Your task to perform on an android device: Search for vegetarian restaurants on Maps Image 0: 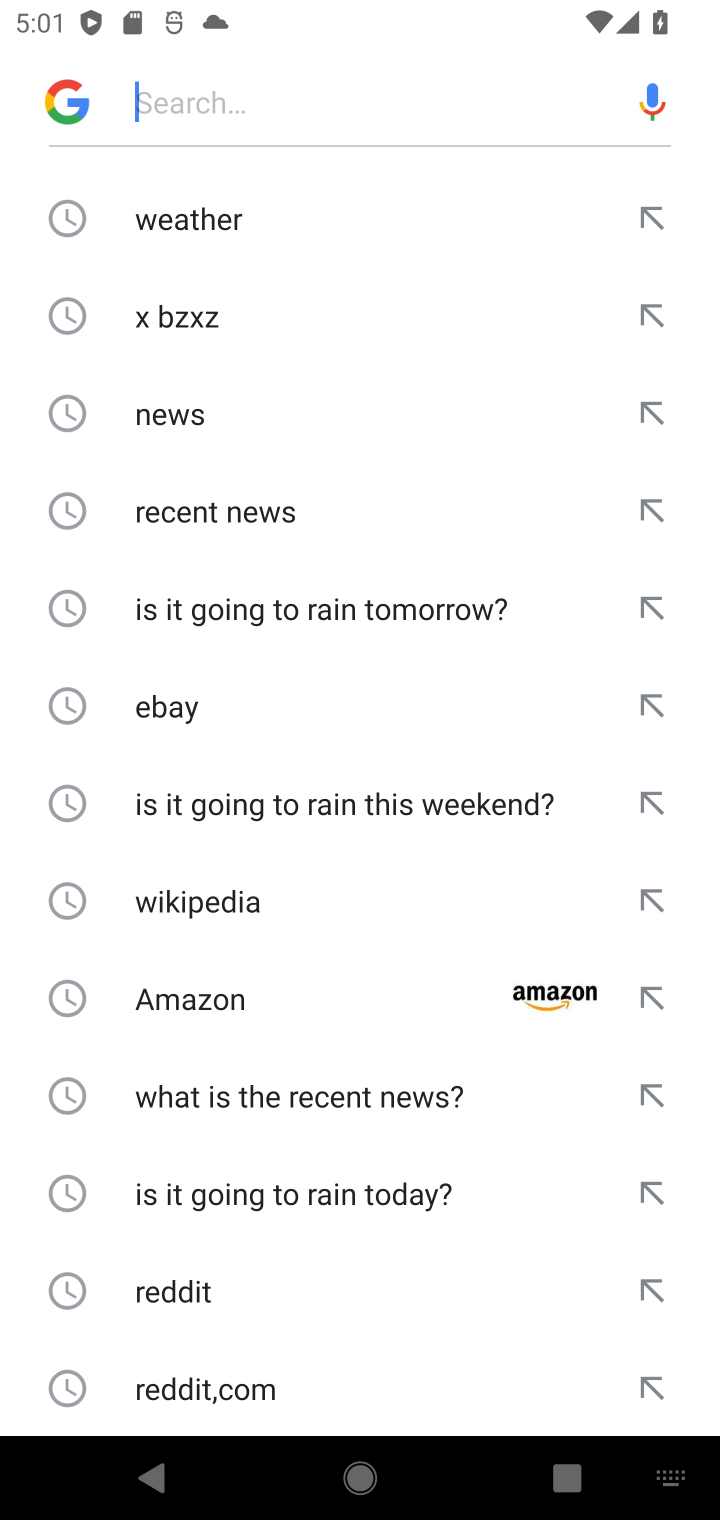
Step 0: press home button
Your task to perform on an android device: Search for vegetarian restaurants on Maps Image 1: 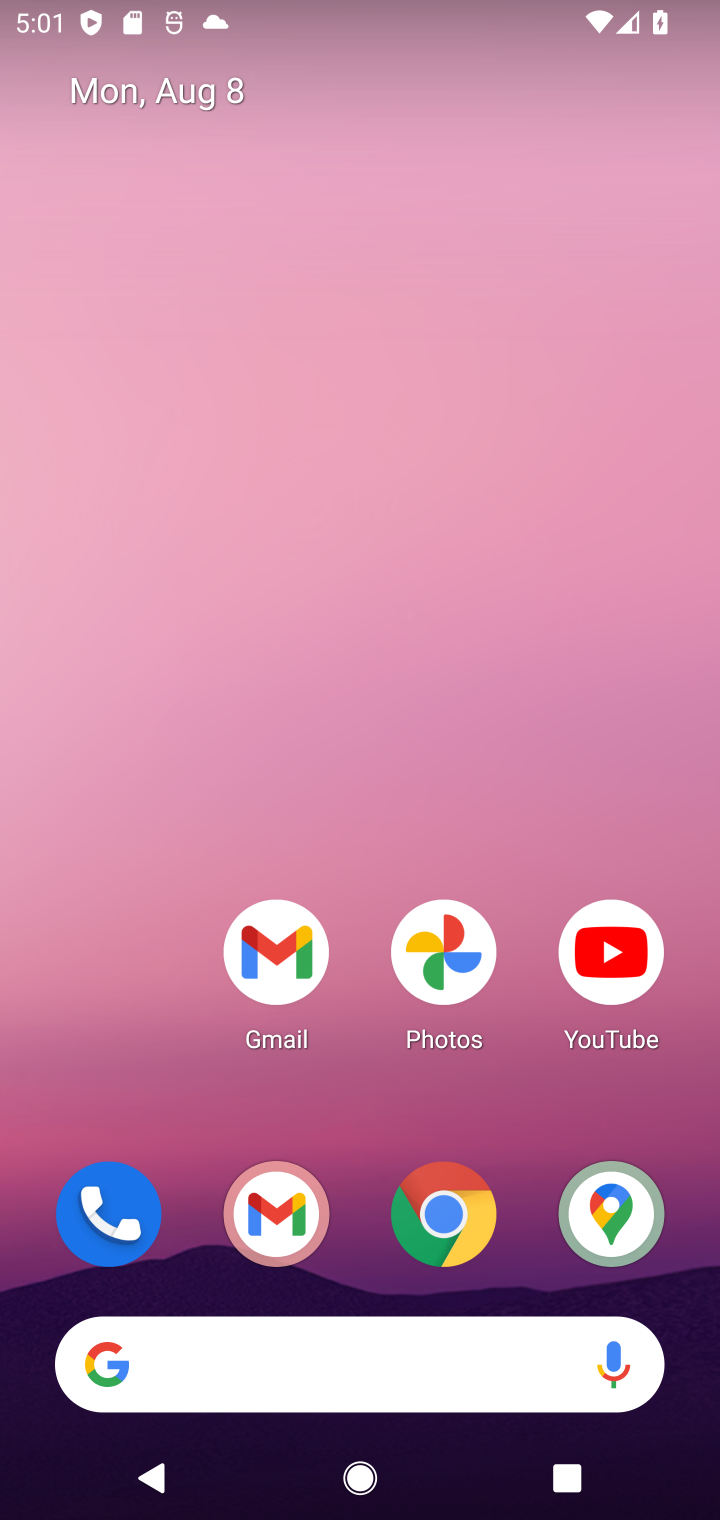
Step 1: drag from (363, 1293) to (363, 121)
Your task to perform on an android device: Search for vegetarian restaurants on Maps Image 2: 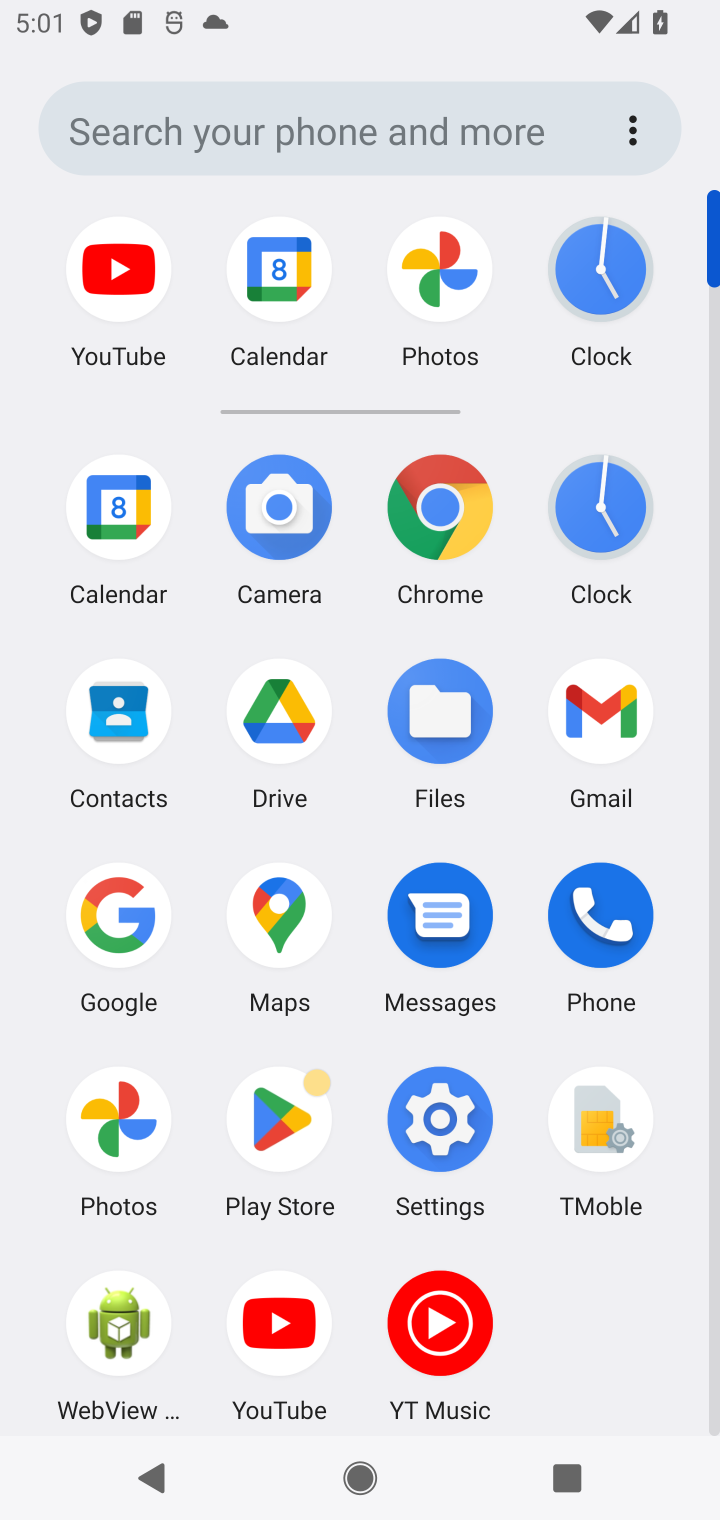
Step 2: click (274, 906)
Your task to perform on an android device: Search for vegetarian restaurants on Maps Image 3: 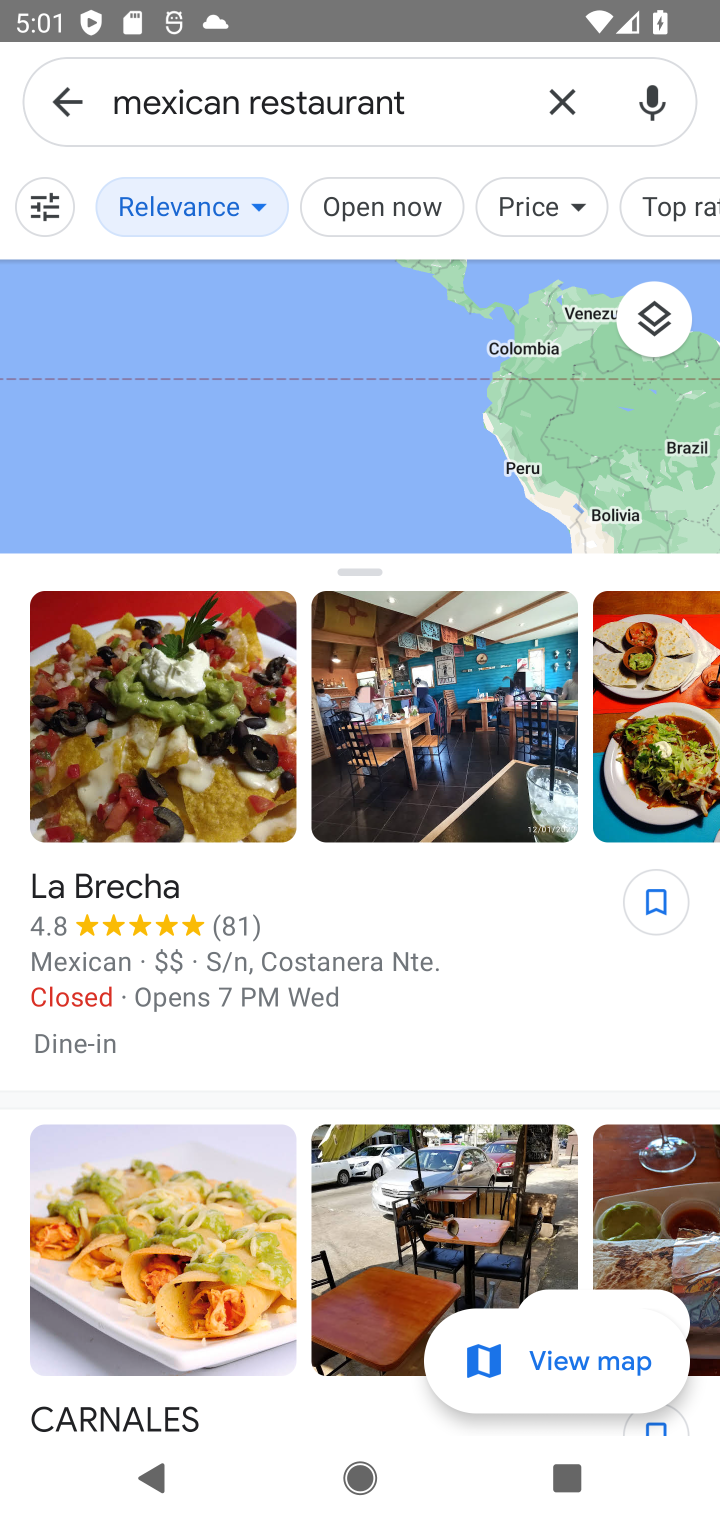
Step 3: click (564, 95)
Your task to perform on an android device: Search for vegetarian restaurants on Maps Image 4: 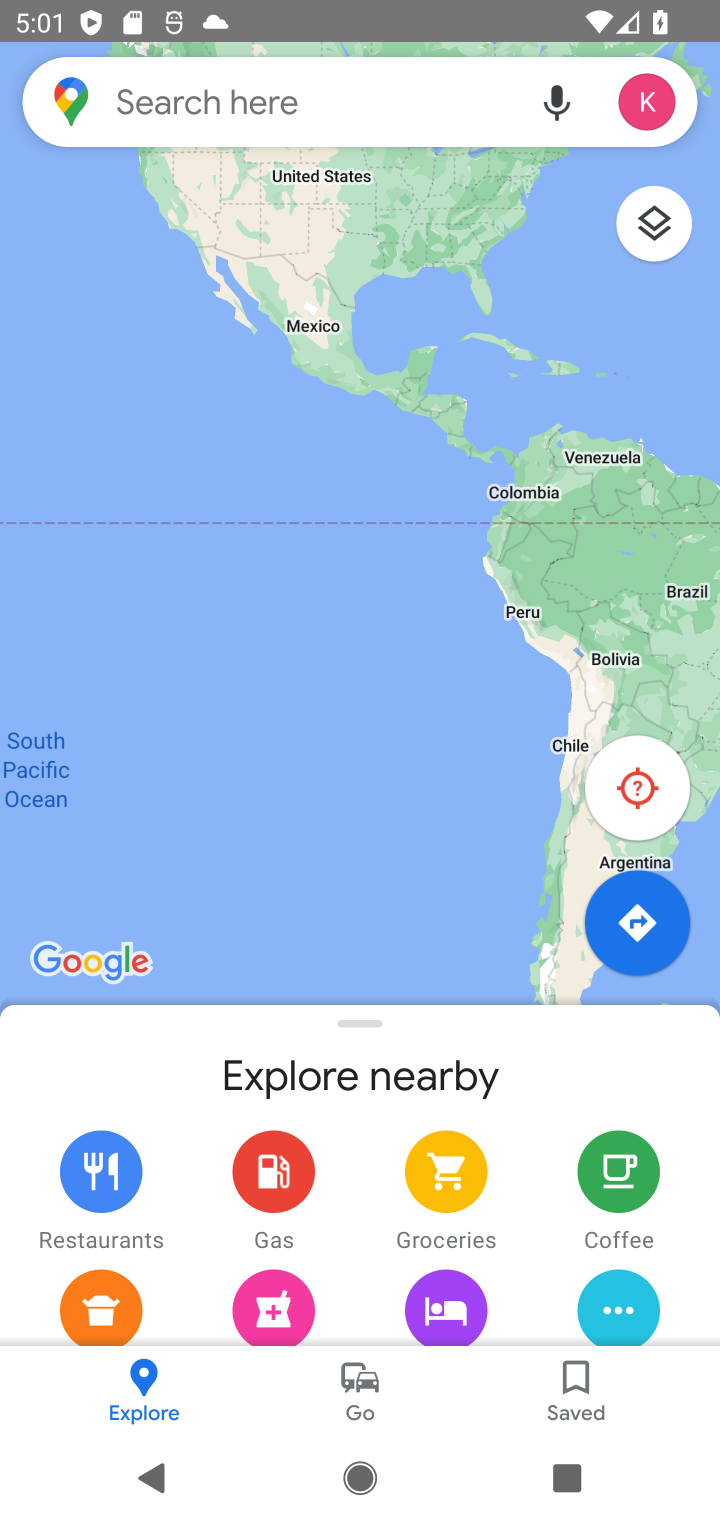
Step 4: click (260, 108)
Your task to perform on an android device: Search for vegetarian restaurants on Maps Image 5: 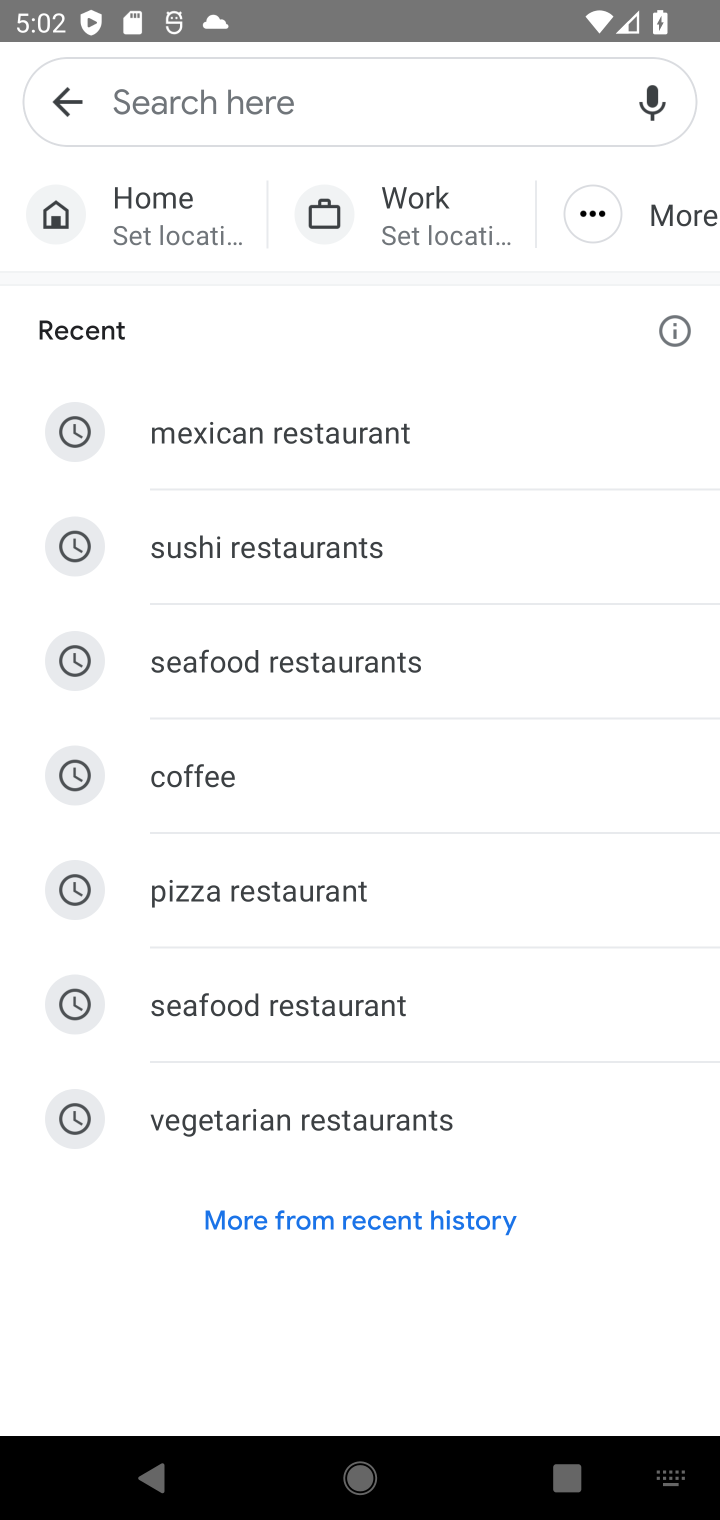
Step 5: click (298, 89)
Your task to perform on an android device: Search for vegetarian restaurants on Maps Image 6: 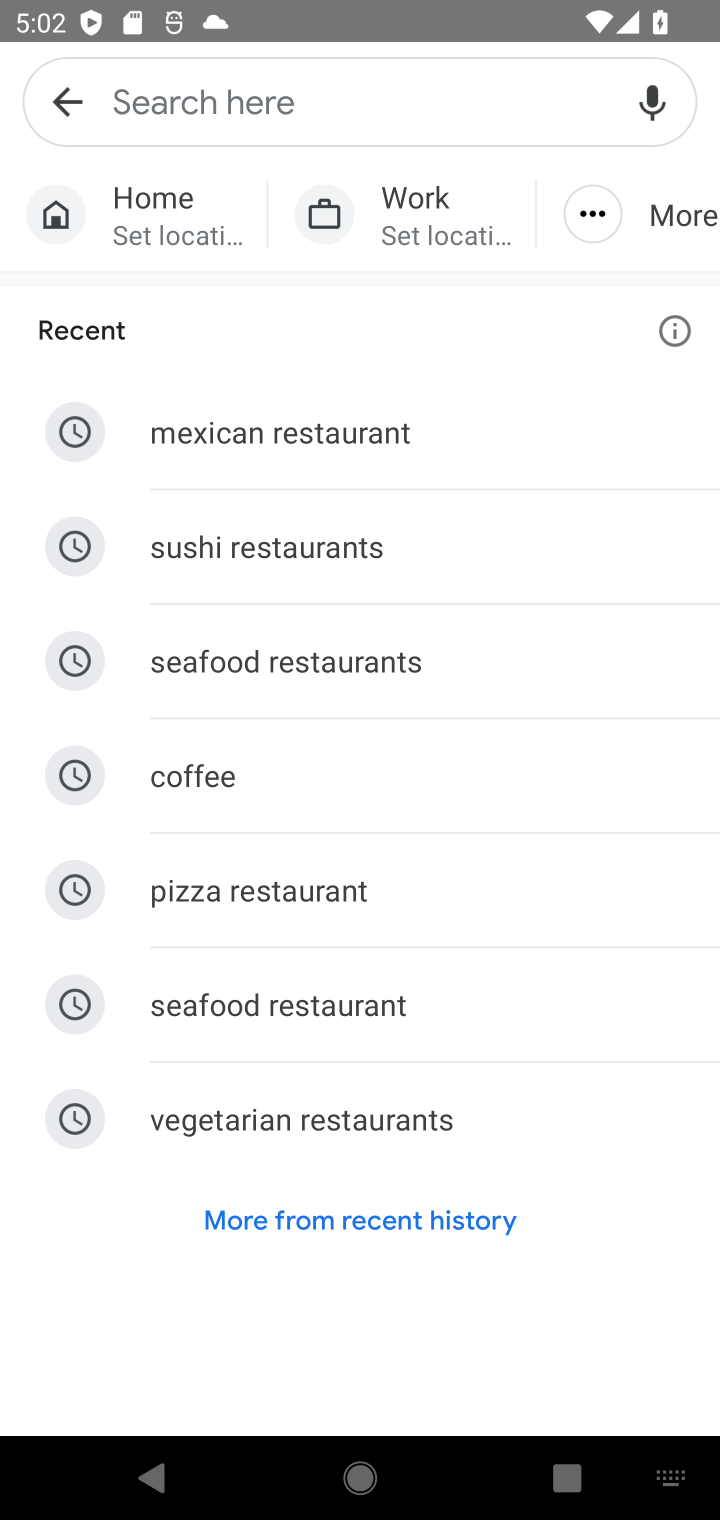
Step 6: type "vegetarian restaurants"
Your task to perform on an android device: Search for vegetarian restaurants on Maps Image 7: 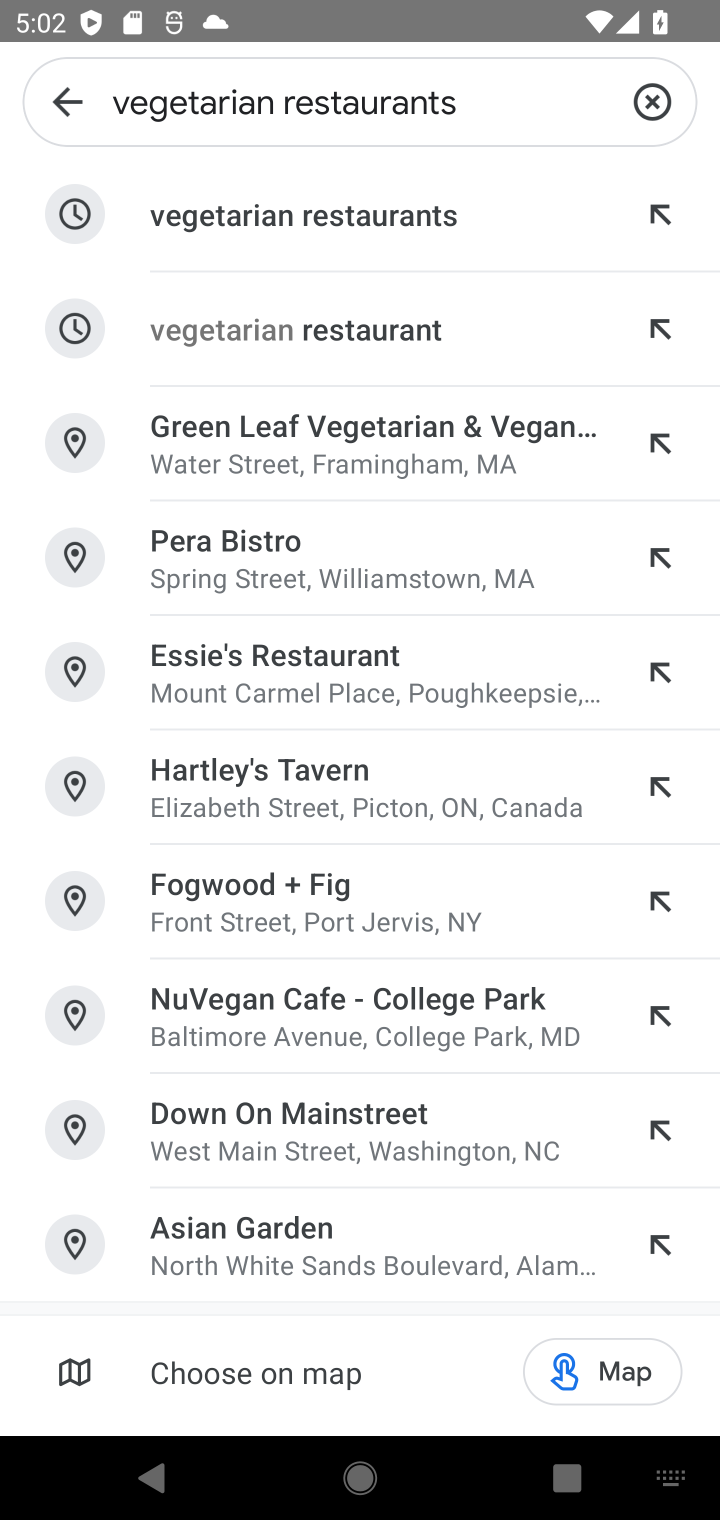
Step 7: click (297, 204)
Your task to perform on an android device: Search for vegetarian restaurants on Maps Image 8: 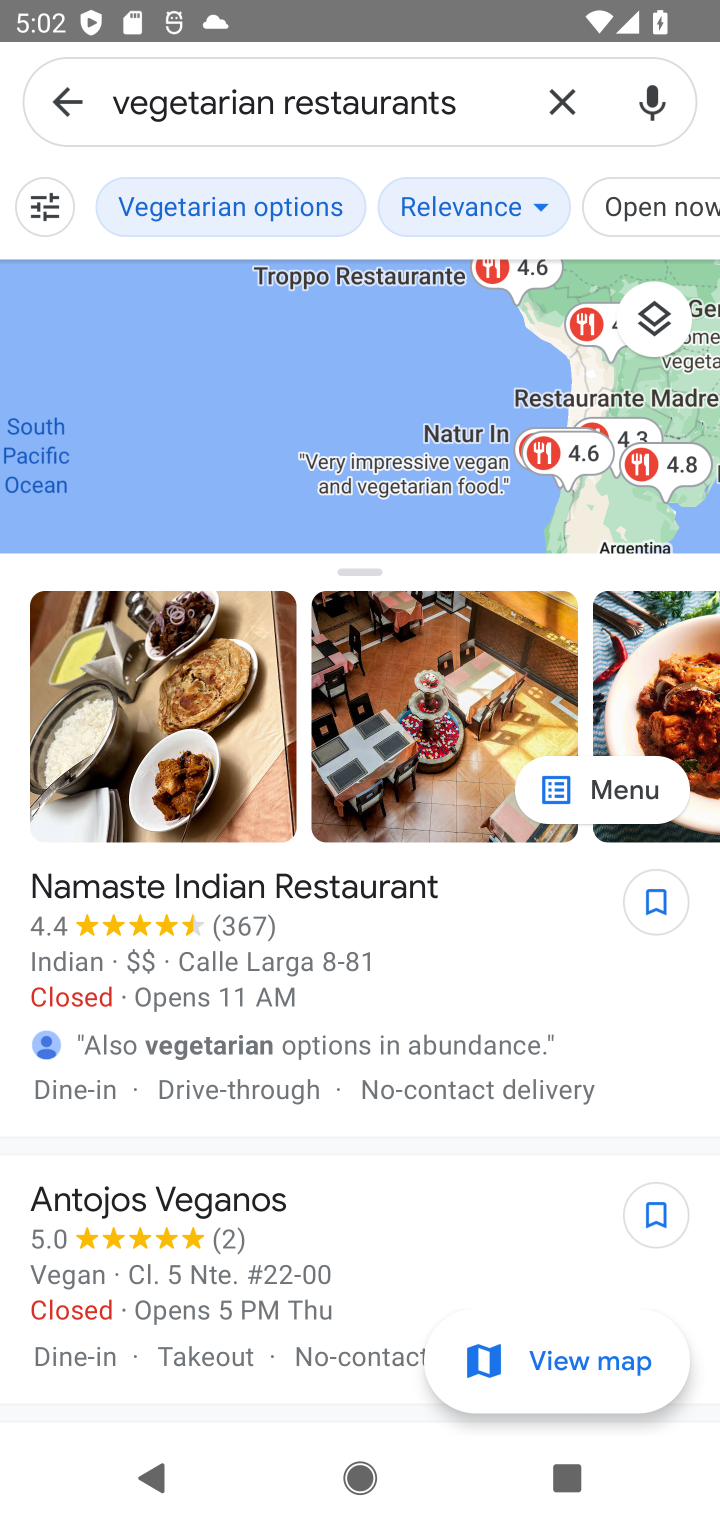
Step 8: task complete